Your task to perform on an android device: Open sound settings Image 0: 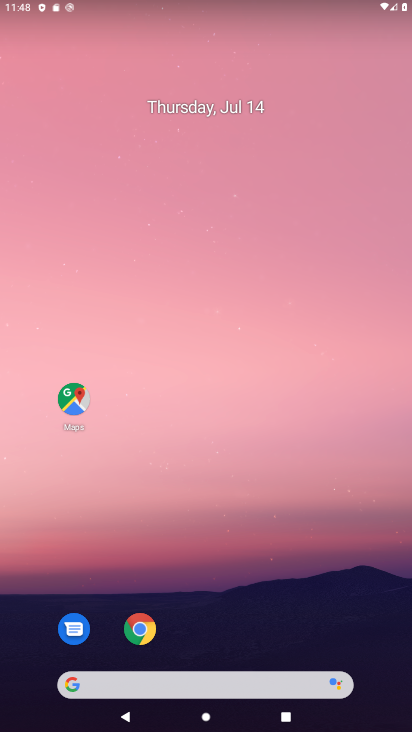
Step 0: press home button
Your task to perform on an android device: Open sound settings Image 1: 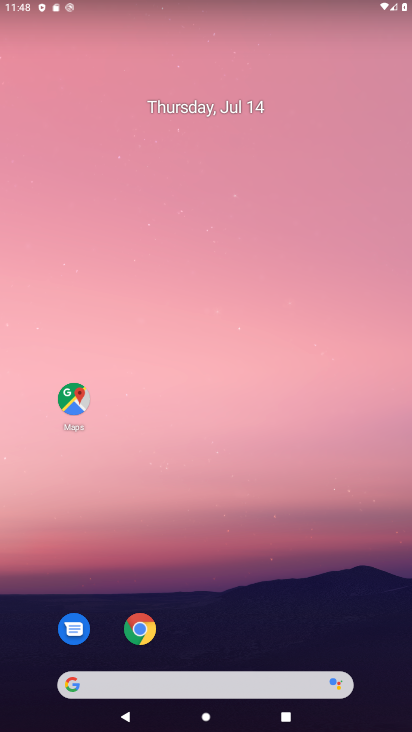
Step 1: drag from (185, 554) to (122, 7)
Your task to perform on an android device: Open sound settings Image 2: 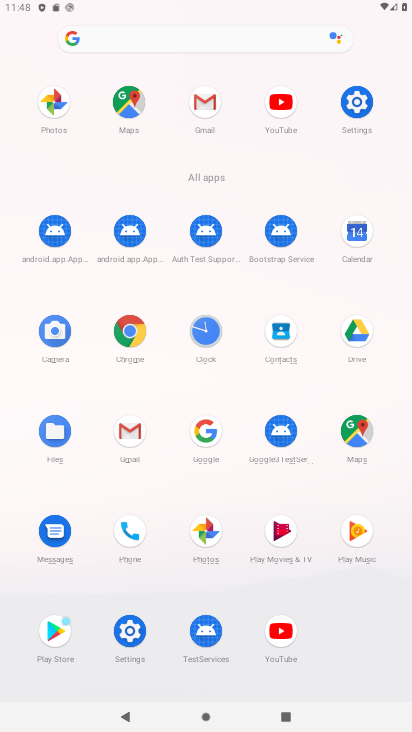
Step 2: click (130, 629)
Your task to perform on an android device: Open sound settings Image 3: 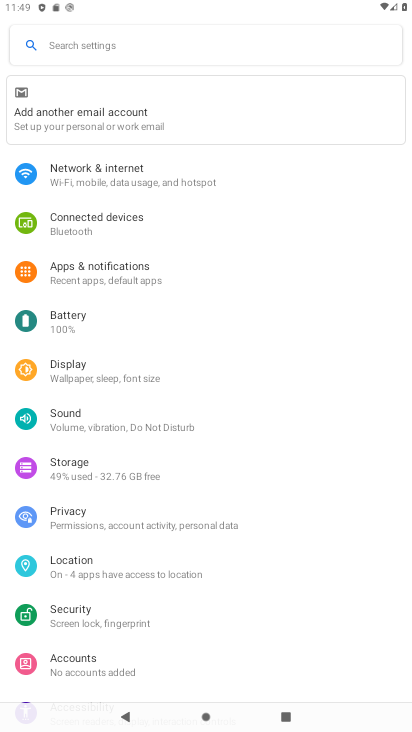
Step 3: drag from (153, 595) to (188, 217)
Your task to perform on an android device: Open sound settings Image 4: 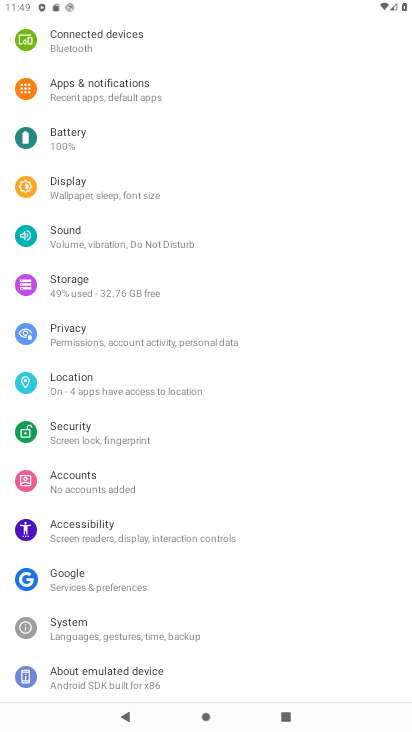
Step 4: click (53, 233)
Your task to perform on an android device: Open sound settings Image 5: 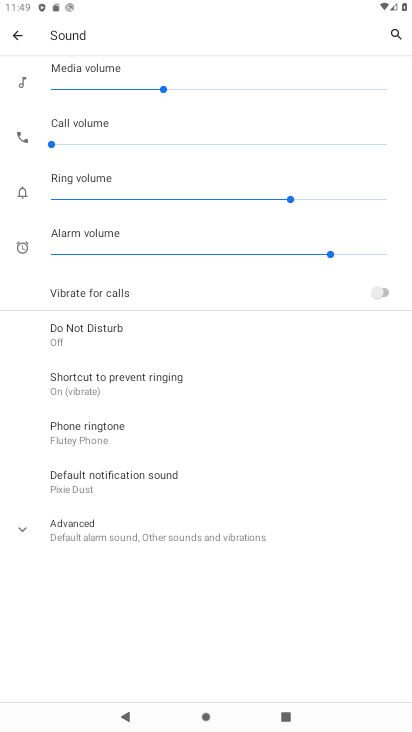
Step 5: task complete